Your task to perform on an android device: change timer sound Image 0: 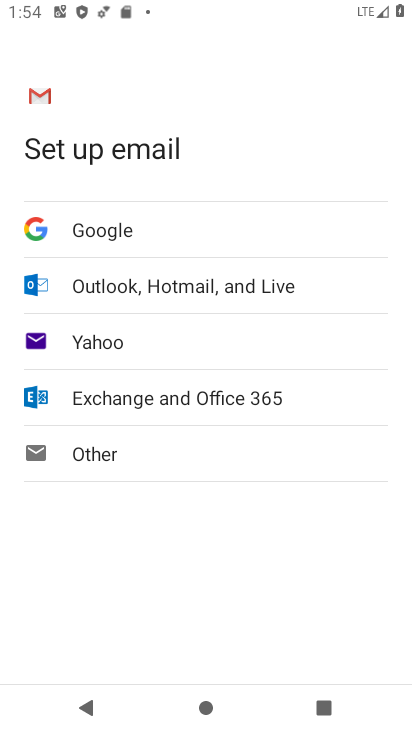
Step 0: press home button
Your task to perform on an android device: change timer sound Image 1: 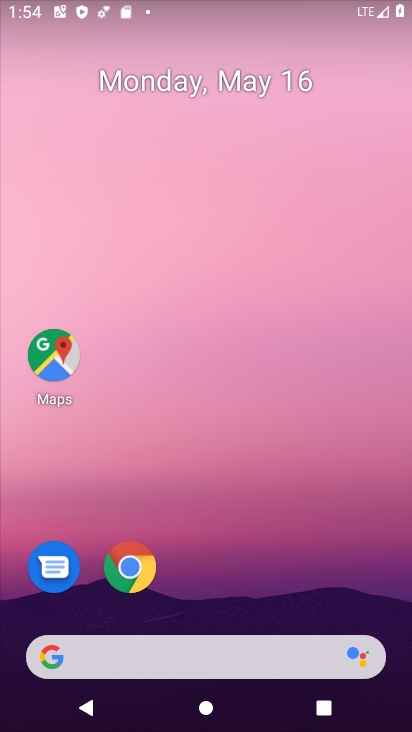
Step 1: drag from (199, 616) to (191, 213)
Your task to perform on an android device: change timer sound Image 2: 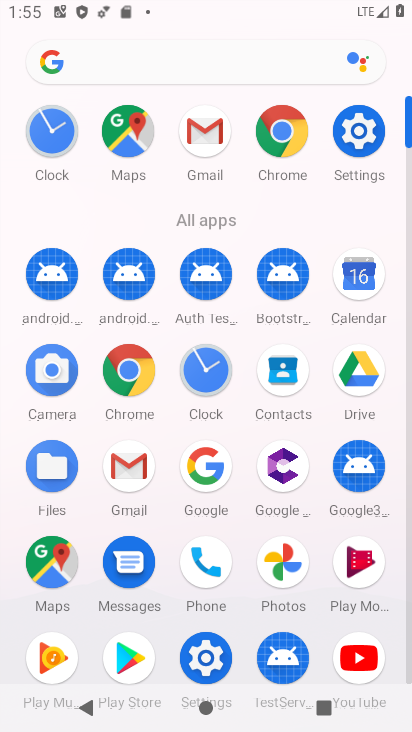
Step 2: click (56, 129)
Your task to perform on an android device: change timer sound Image 3: 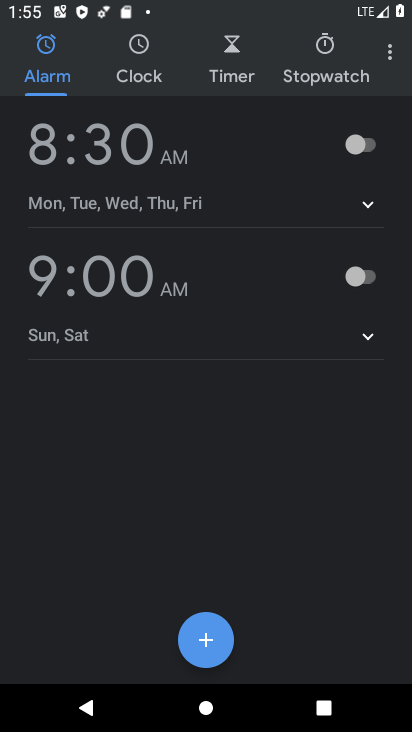
Step 3: click (390, 56)
Your task to perform on an android device: change timer sound Image 4: 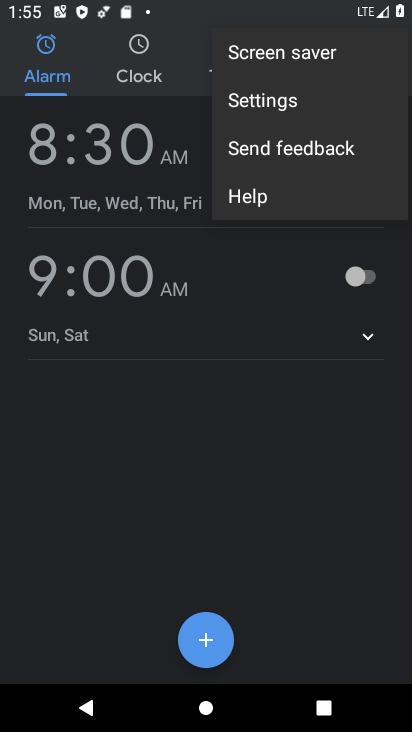
Step 4: click (364, 102)
Your task to perform on an android device: change timer sound Image 5: 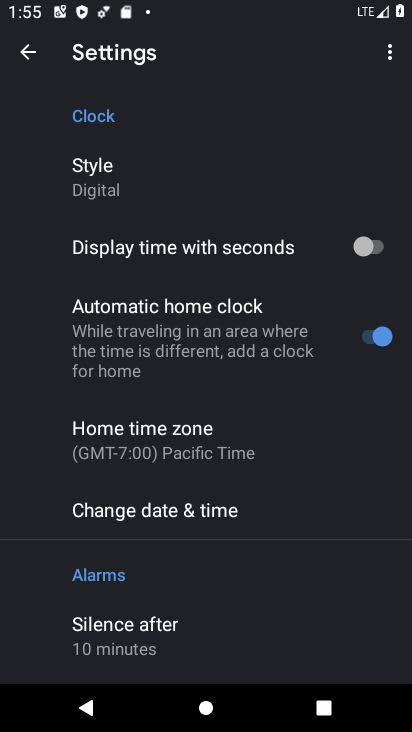
Step 5: drag from (272, 633) to (258, 229)
Your task to perform on an android device: change timer sound Image 6: 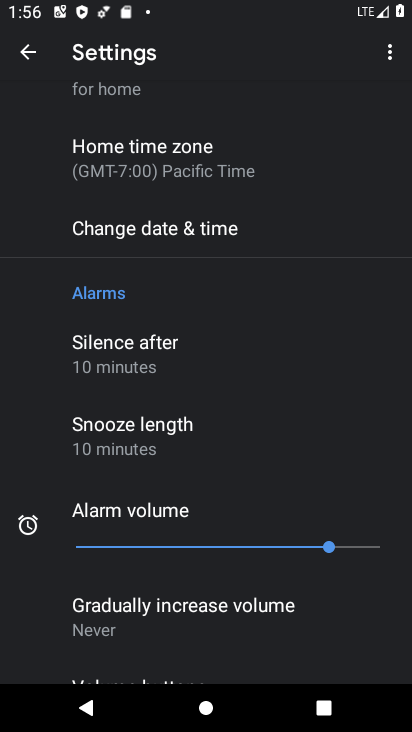
Step 6: drag from (302, 663) to (220, 319)
Your task to perform on an android device: change timer sound Image 7: 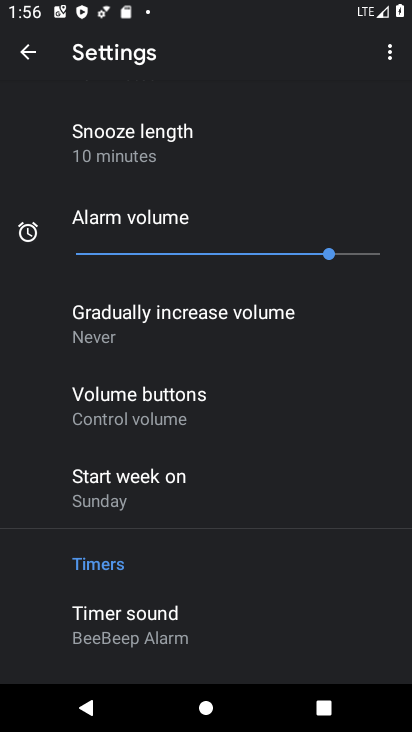
Step 7: click (253, 651)
Your task to perform on an android device: change timer sound Image 8: 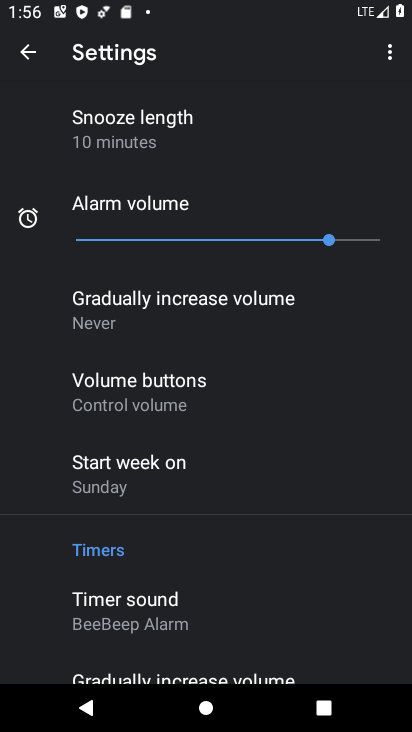
Step 8: click (244, 623)
Your task to perform on an android device: change timer sound Image 9: 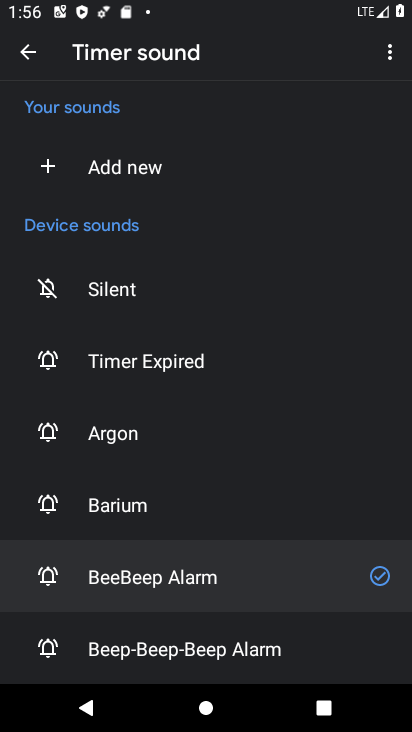
Step 9: click (247, 645)
Your task to perform on an android device: change timer sound Image 10: 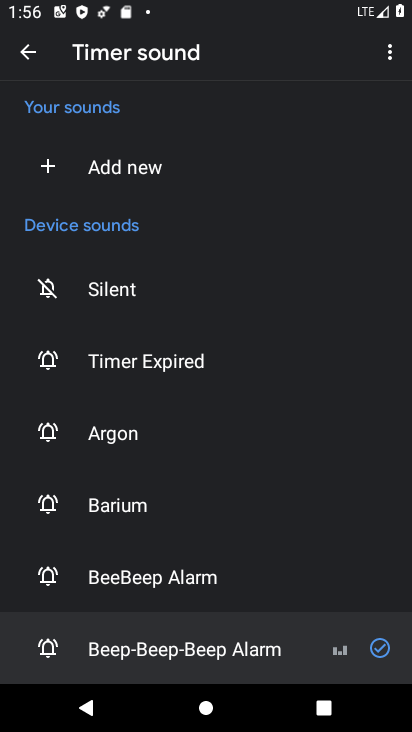
Step 10: task complete